Your task to perform on an android device: turn pop-ups on in chrome Image 0: 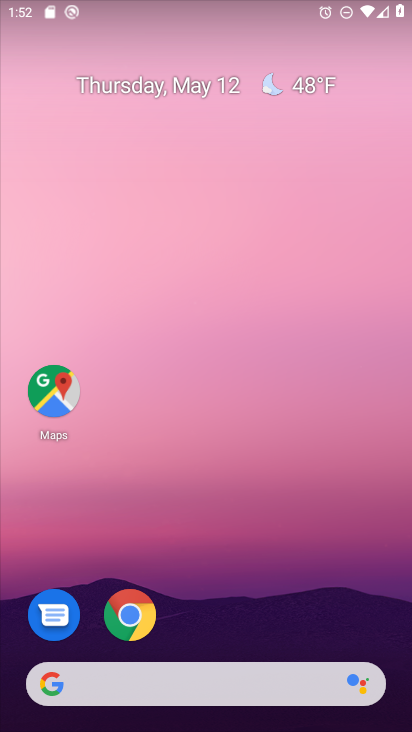
Step 0: drag from (61, 678) to (312, 56)
Your task to perform on an android device: turn pop-ups on in chrome Image 1: 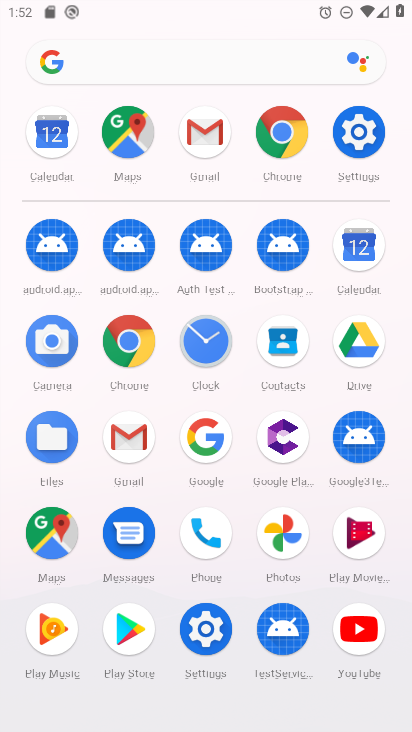
Step 1: click (120, 332)
Your task to perform on an android device: turn pop-ups on in chrome Image 2: 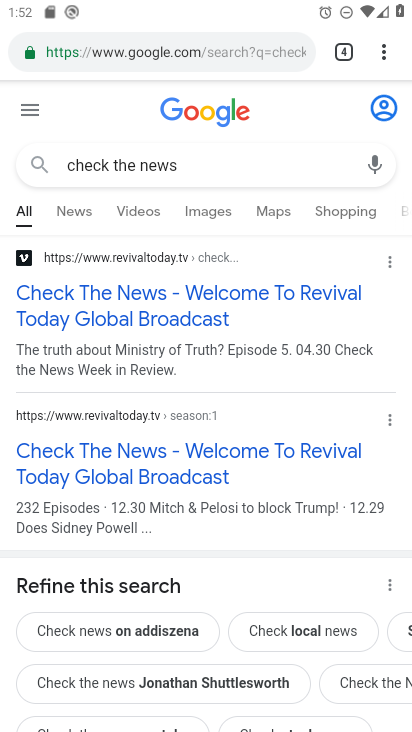
Step 2: click (384, 44)
Your task to perform on an android device: turn pop-ups on in chrome Image 3: 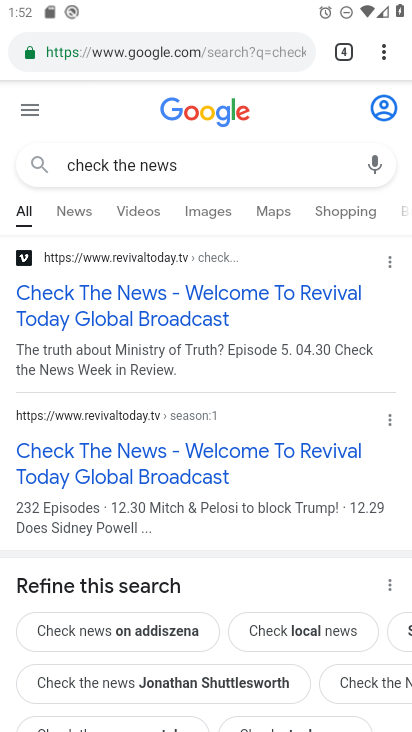
Step 3: drag from (377, 49) to (216, 591)
Your task to perform on an android device: turn pop-ups on in chrome Image 4: 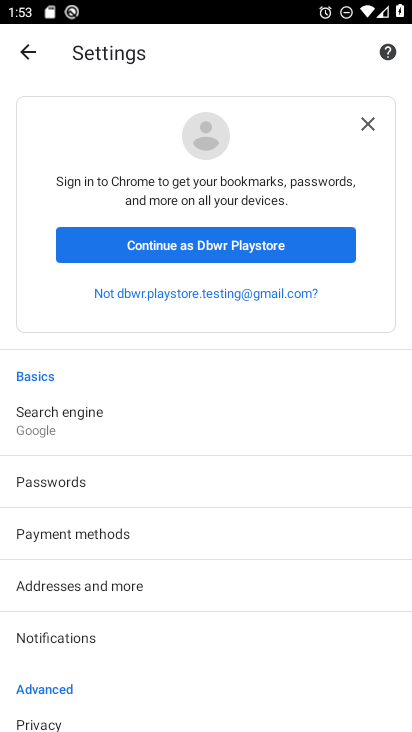
Step 4: drag from (167, 676) to (247, 252)
Your task to perform on an android device: turn pop-ups on in chrome Image 5: 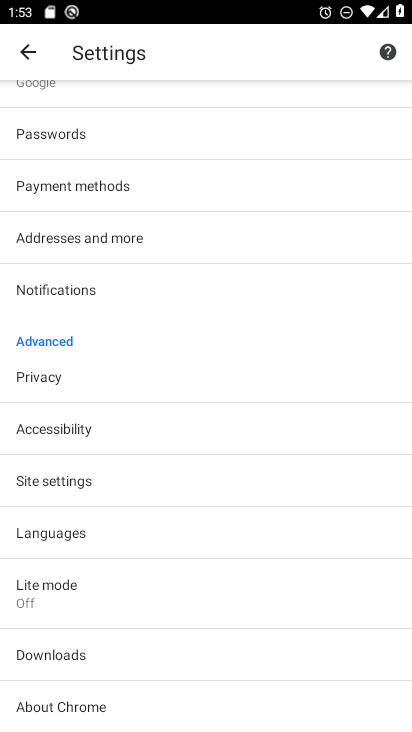
Step 5: click (91, 486)
Your task to perform on an android device: turn pop-ups on in chrome Image 6: 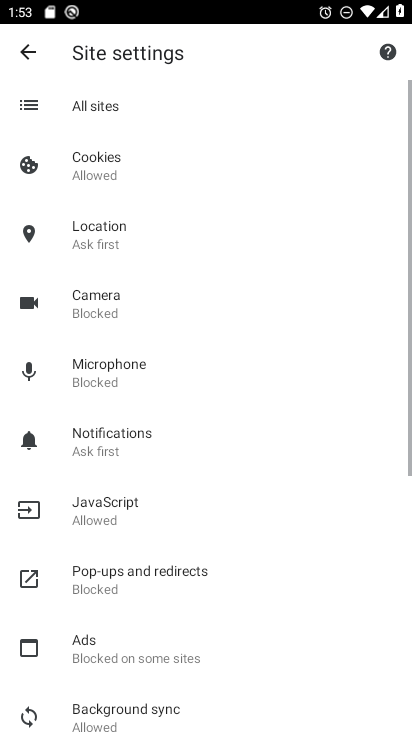
Step 6: drag from (245, 697) to (276, 512)
Your task to perform on an android device: turn pop-ups on in chrome Image 7: 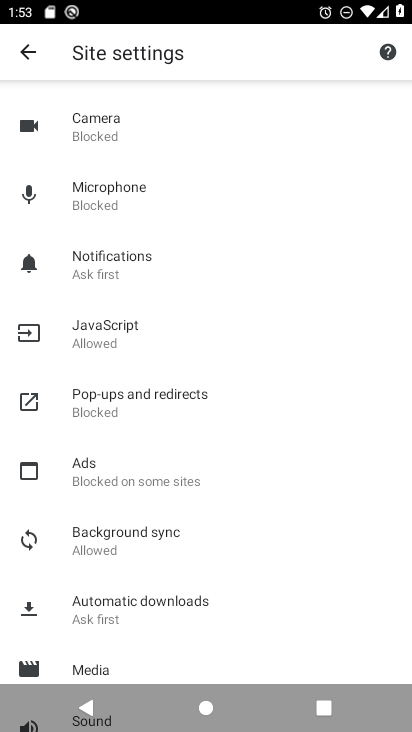
Step 7: click (205, 398)
Your task to perform on an android device: turn pop-ups on in chrome Image 8: 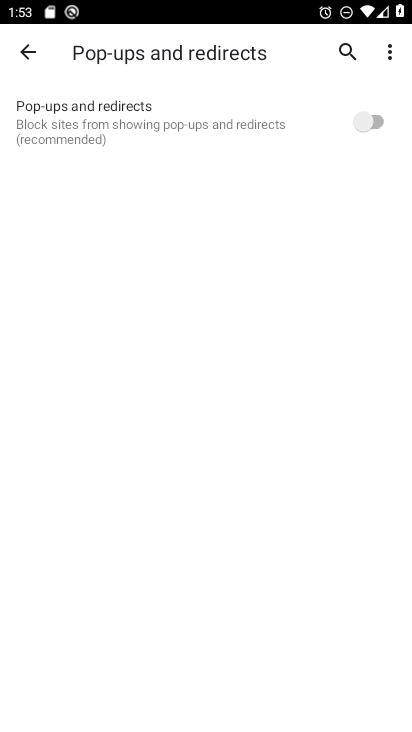
Step 8: click (376, 124)
Your task to perform on an android device: turn pop-ups on in chrome Image 9: 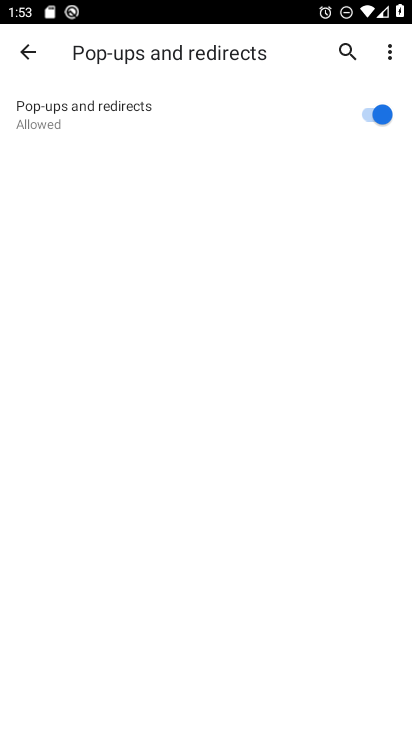
Step 9: task complete